Your task to perform on an android device: Go to location settings Image 0: 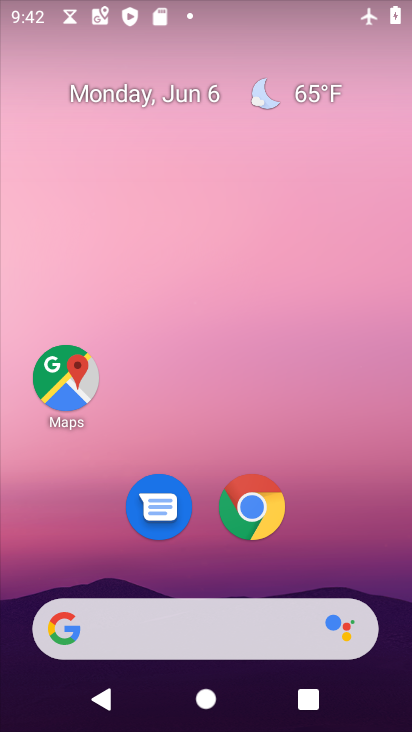
Step 0: drag from (317, 573) to (331, 237)
Your task to perform on an android device: Go to location settings Image 1: 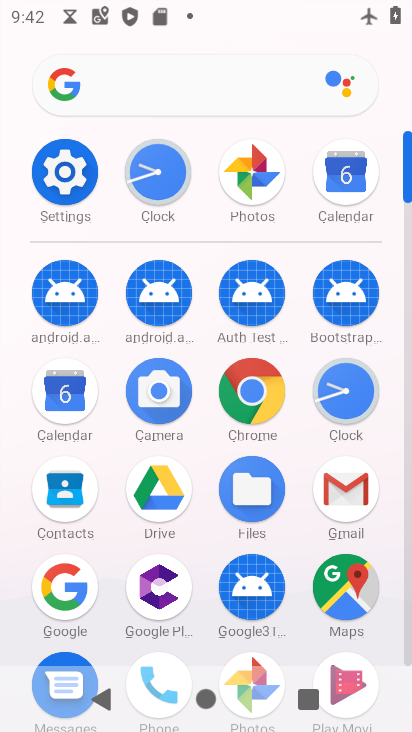
Step 1: click (42, 166)
Your task to perform on an android device: Go to location settings Image 2: 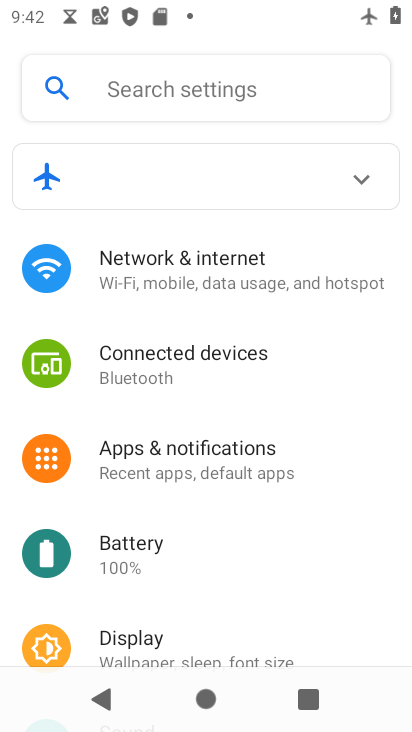
Step 2: drag from (175, 568) to (228, 309)
Your task to perform on an android device: Go to location settings Image 3: 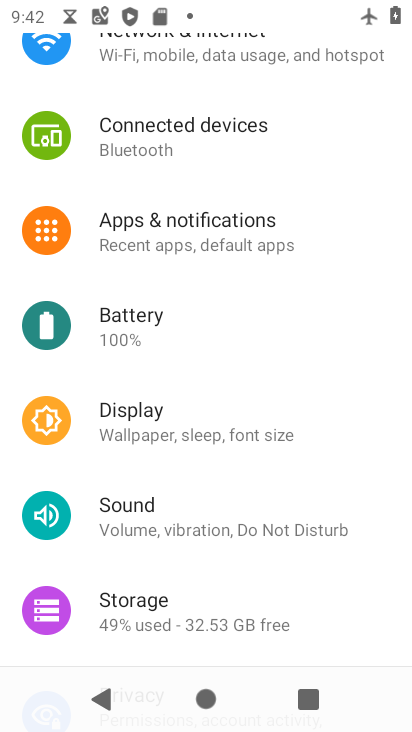
Step 3: drag from (187, 509) to (199, 360)
Your task to perform on an android device: Go to location settings Image 4: 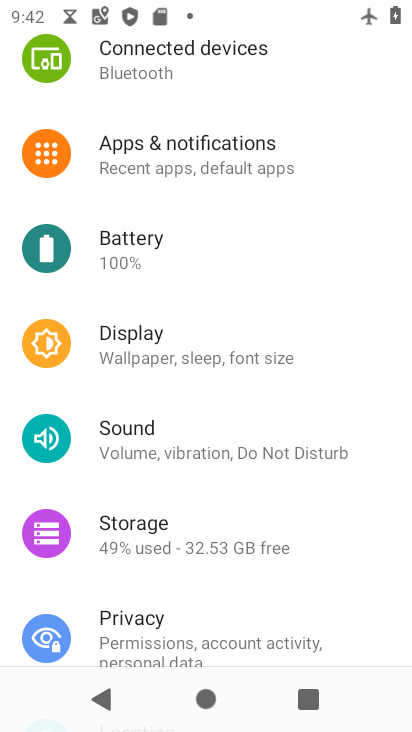
Step 4: drag from (169, 555) to (216, 279)
Your task to perform on an android device: Go to location settings Image 5: 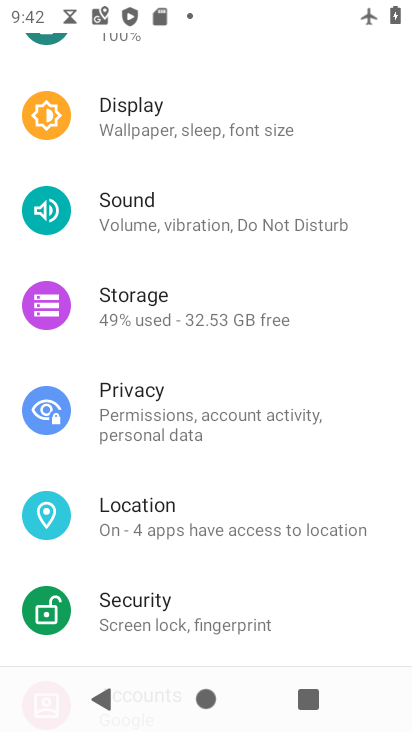
Step 5: click (162, 529)
Your task to perform on an android device: Go to location settings Image 6: 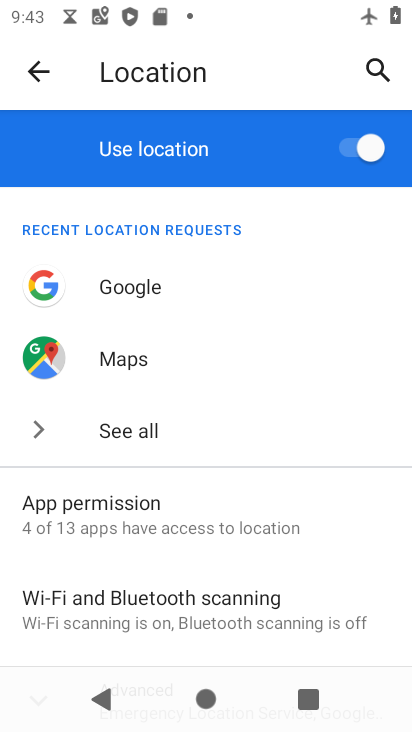
Step 6: task complete